Your task to perform on an android device: move an email to a new category in the gmail app Image 0: 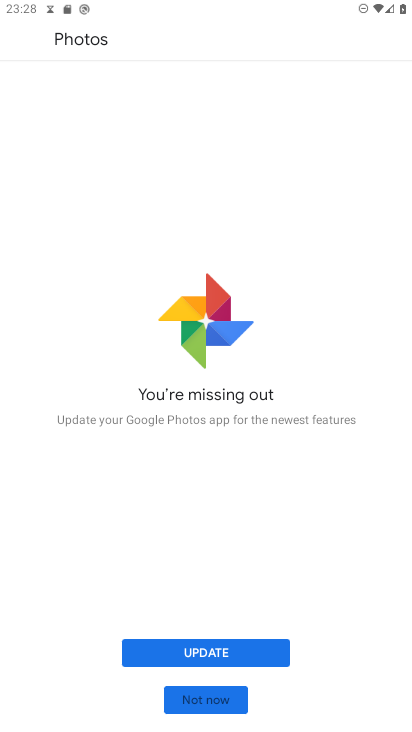
Step 0: press home button
Your task to perform on an android device: move an email to a new category in the gmail app Image 1: 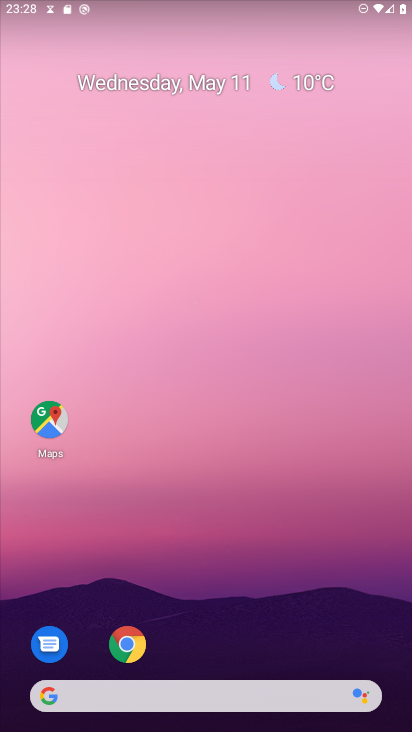
Step 1: drag from (318, 623) to (392, 0)
Your task to perform on an android device: move an email to a new category in the gmail app Image 2: 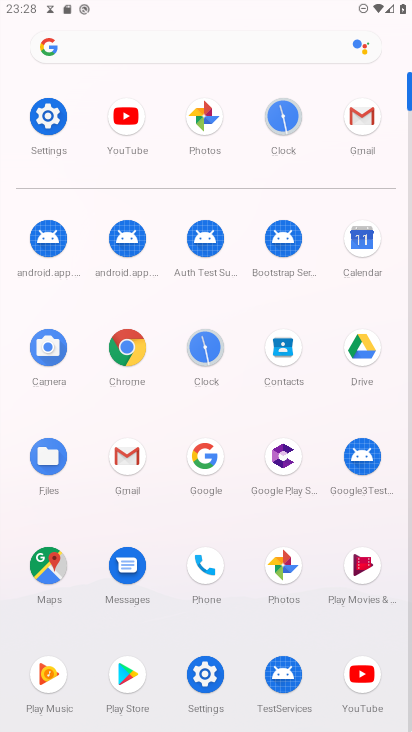
Step 2: click (362, 119)
Your task to perform on an android device: move an email to a new category in the gmail app Image 3: 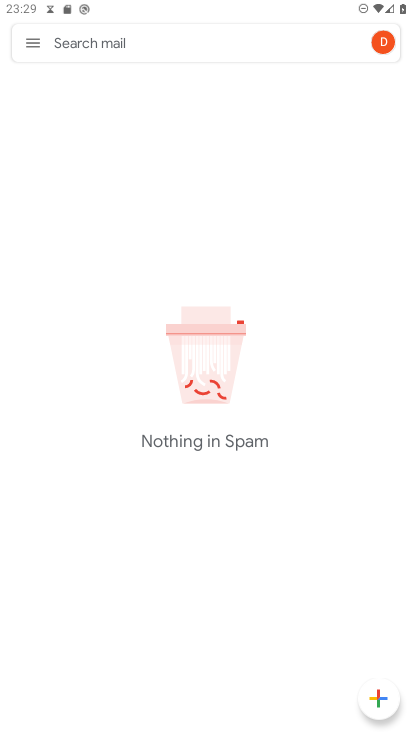
Step 3: click (39, 49)
Your task to perform on an android device: move an email to a new category in the gmail app Image 4: 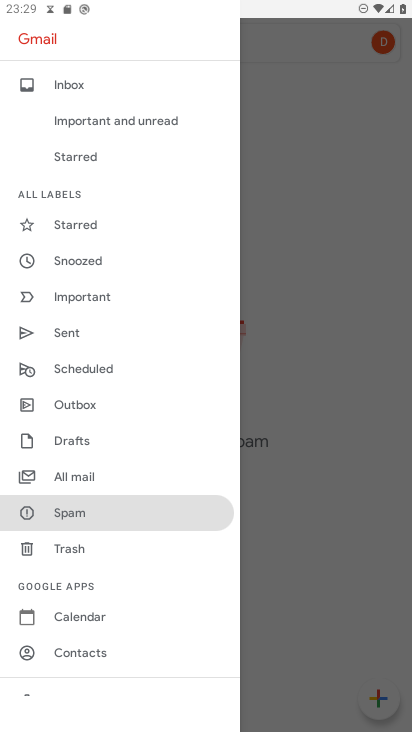
Step 4: click (75, 473)
Your task to perform on an android device: move an email to a new category in the gmail app Image 5: 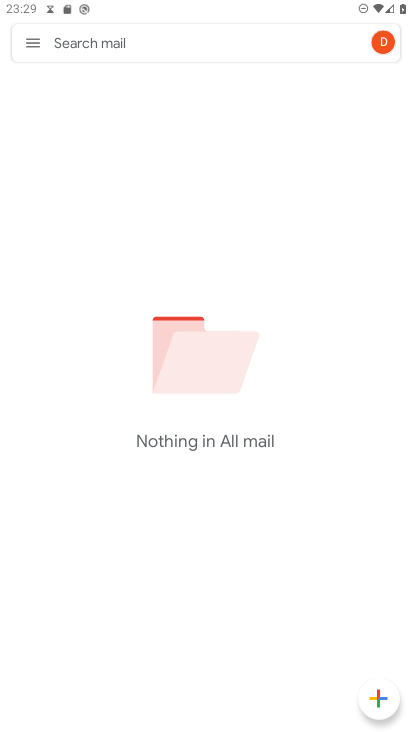
Step 5: click (16, 170)
Your task to perform on an android device: move an email to a new category in the gmail app Image 6: 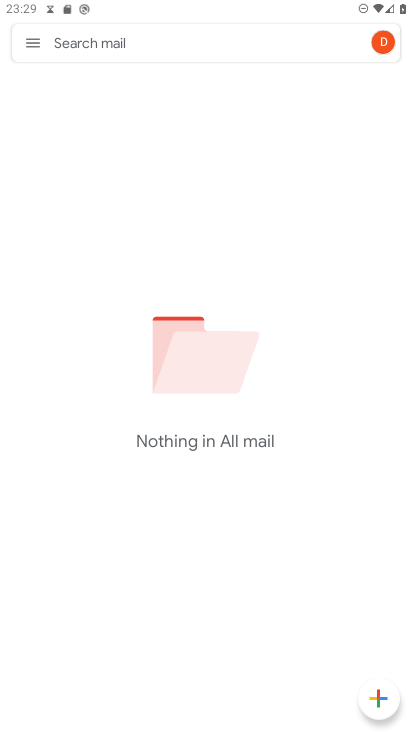
Step 6: task complete